Your task to perform on an android device: Play the last video I watched on Youtube Image 0: 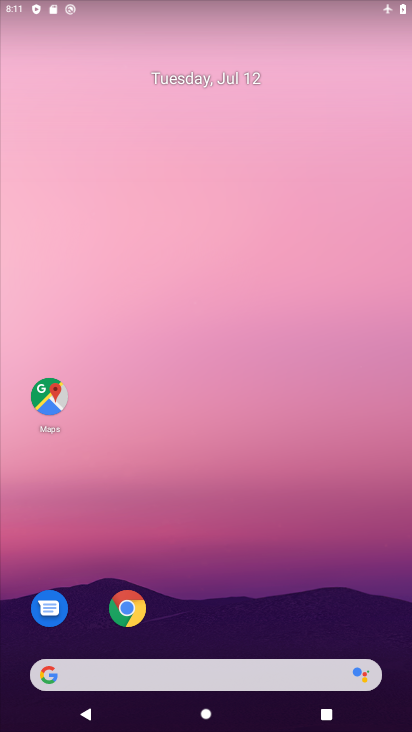
Step 0: drag from (217, 625) to (176, 136)
Your task to perform on an android device: Play the last video I watched on Youtube Image 1: 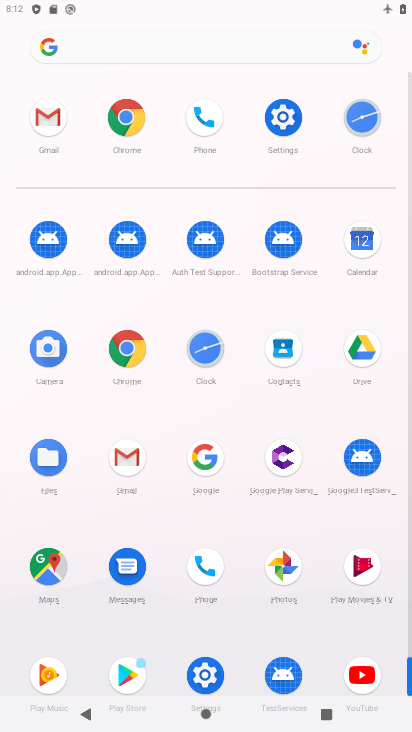
Step 1: click (385, 576)
Your task to perform on an android device: Play the last video I watched on Youtube Image 2: 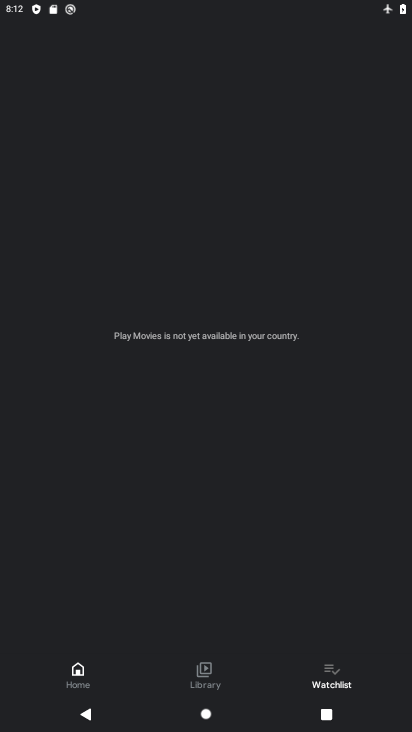
Step 2: press back button
Your task to perform on an android device: Play the last video I watched on Youtube Image 3: 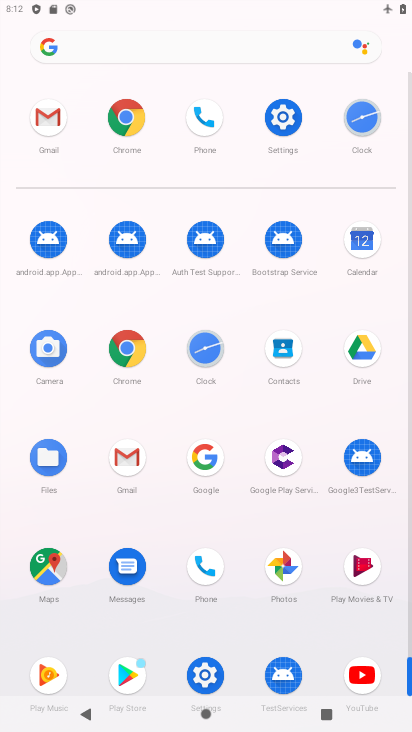
Step 3: click (359, 673)
Your task to perform on an android device: Play the last video I watched on Youtube Image 4: 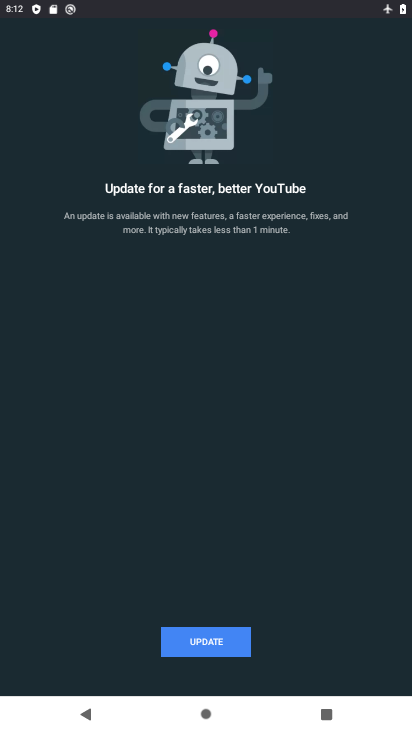
Step 4: click (232, 647)
Your task to perform on an android device: Play the last video I watched on Youtube Image 5: 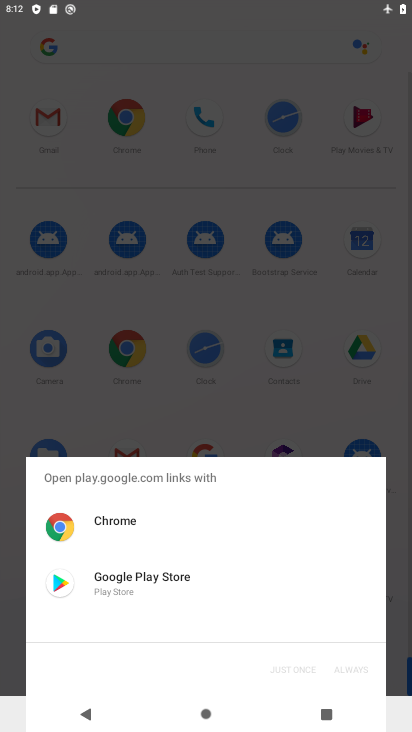
Step 5: click (159, 615)
Your task to perform on an android device: Play the last video I watched on Youtube Image 6: 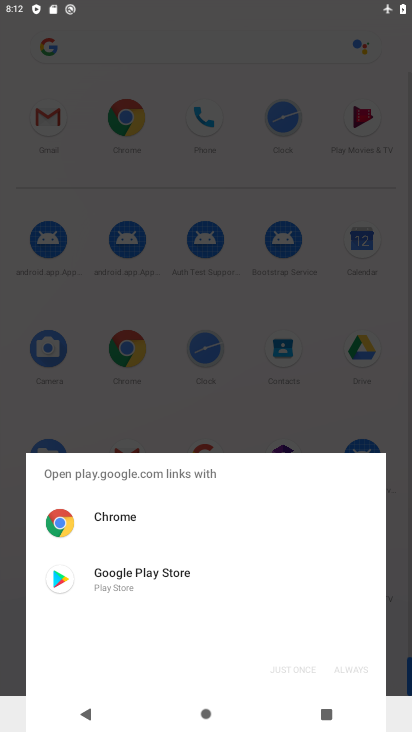
Step 6: click (147, 600)
Your task to perform on an android device: Play the last video I watched on Youtube Image 7: 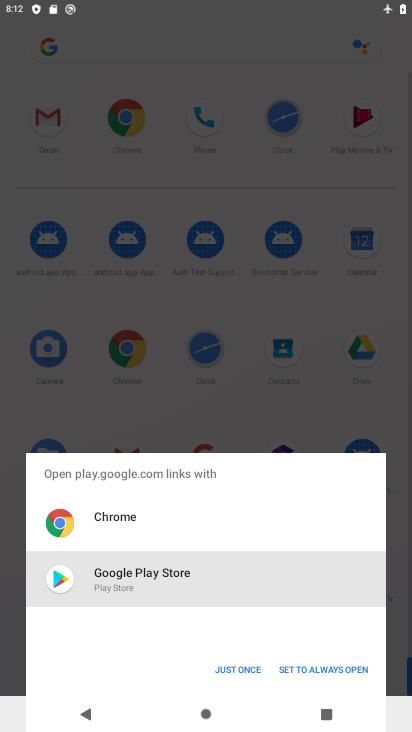
Step 7: click (248, 659)
Your task to perform on an android device: Play the last video I watched on Youtube Image 8: 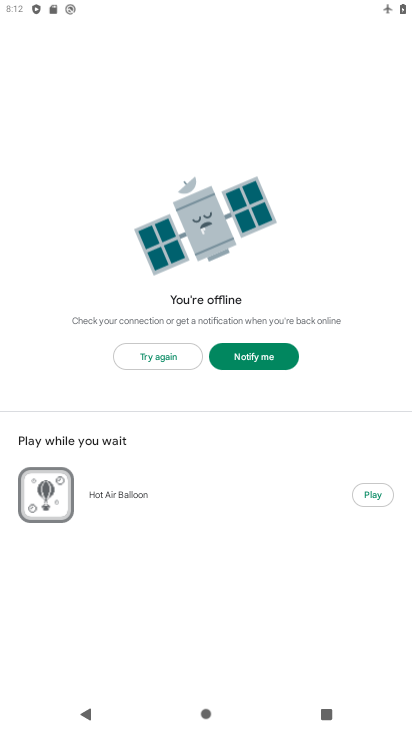
Step 8: task complete